Your task to perform on an android device: search for starred emails in the gmail app Image 0: 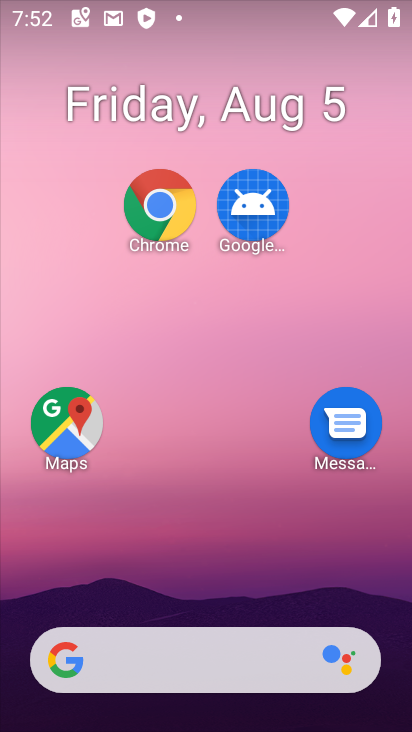
Step 0: drag from (191, 534) to (99, 58)
Your task to perform on an android device: search for starred emails in the gmail app Image 1: 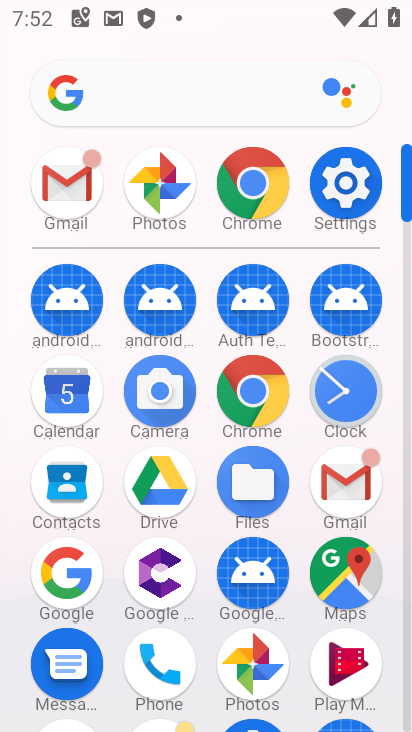
Step 1: click (60, 179)
Your task to perform on an android device: search for starred emails in the gmail app Image 2: 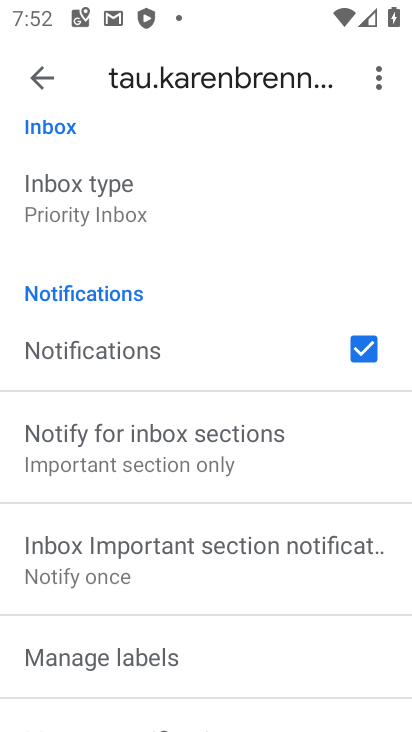
Step 2: click (46, 69)
Your task to perform on an android device: search for starred emails in the gmail app Image 3: 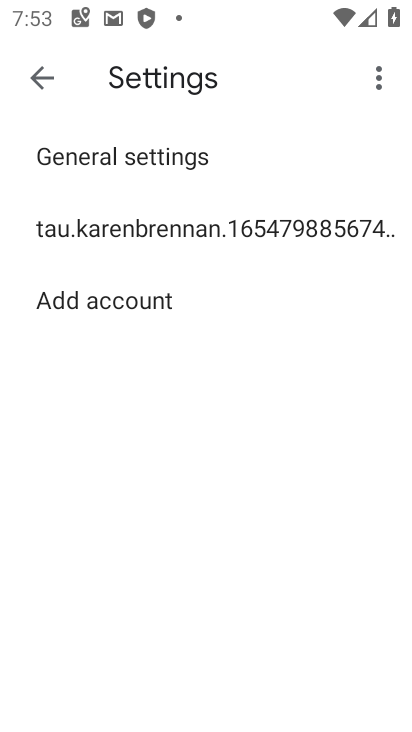
Step 3: click (45, 71)
Your task to perform on an android device: search for starred emails in the gmail app Image 4: 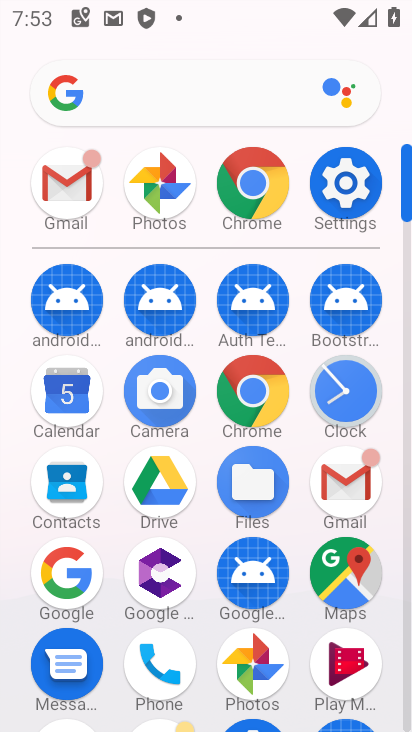
Step 4: click (23, 210)
Your task to perform on an android device: search for starred emails in the gmail app Image 5: 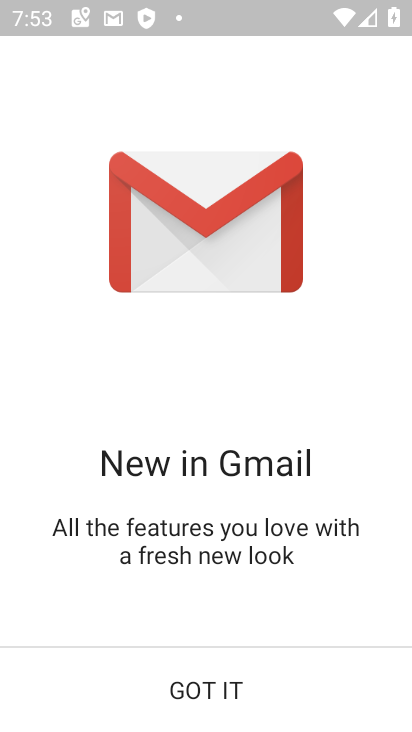
Step 5: click (210, 696)
Your task to perform on an android device: search for starred emails in the gmail app Image 6: 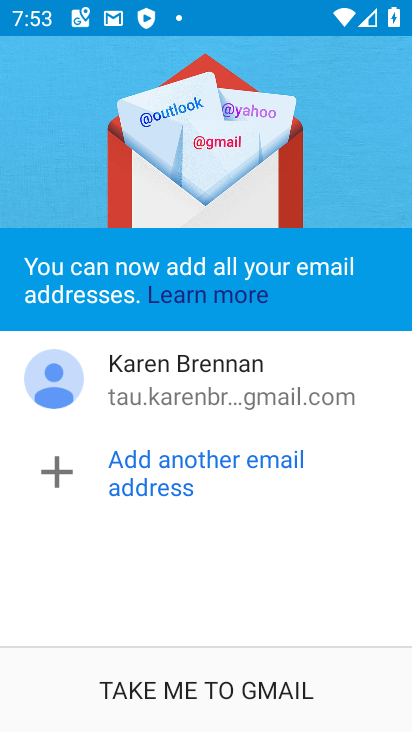
Step 6: click (148, 677)
Your task to perform on an android device: search for starred emails in the gmail app Image 7: 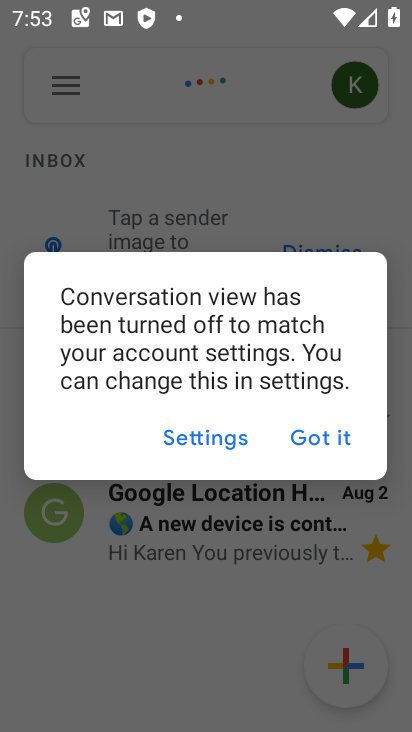
Step 7: click (339, 441)
Your task to perform on an android device: search for starred emails in the gmail app Image 8: 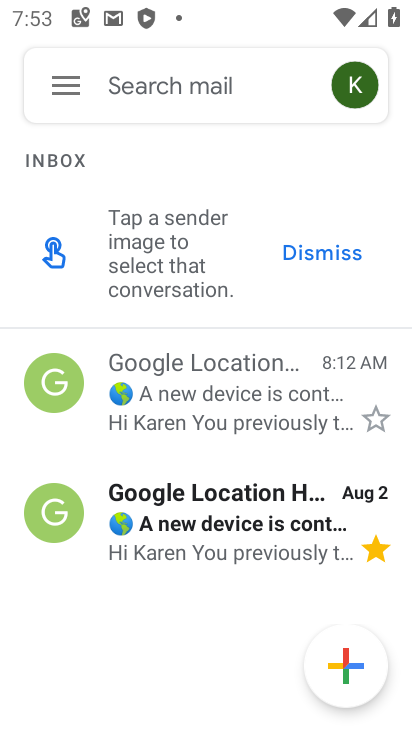
Step 8: click (62, 72)
Your task to perform on an android device: search for starred emails in the gmail app Image 9: 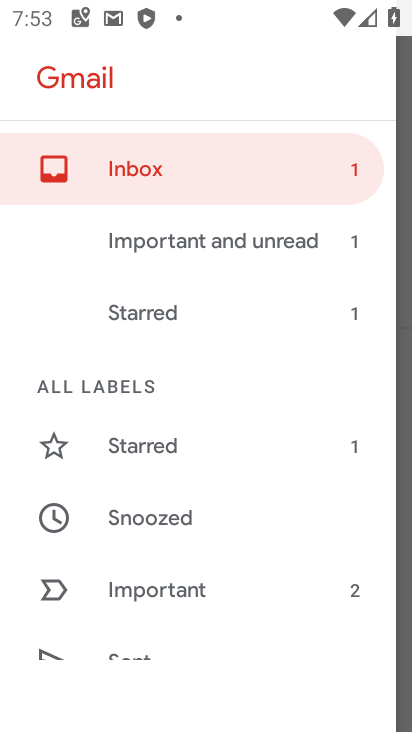
Step 9: click (105, 324)
Your task to perform on an android device: search for starred emails in the gmail app Image 10: 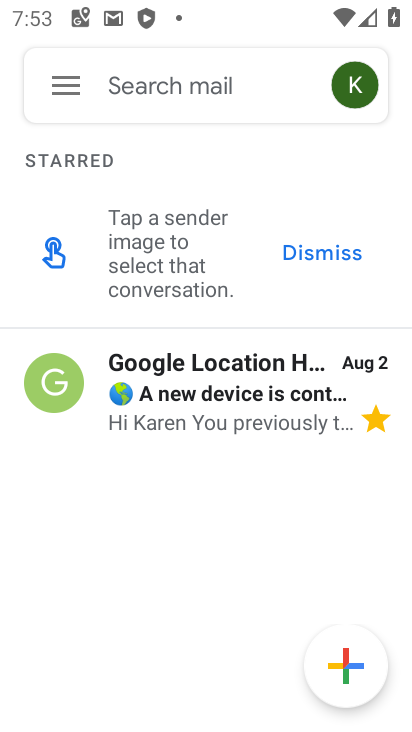
Step 10: task complete